Your task to perform on an android device: Turn on the flashlight Image 0: 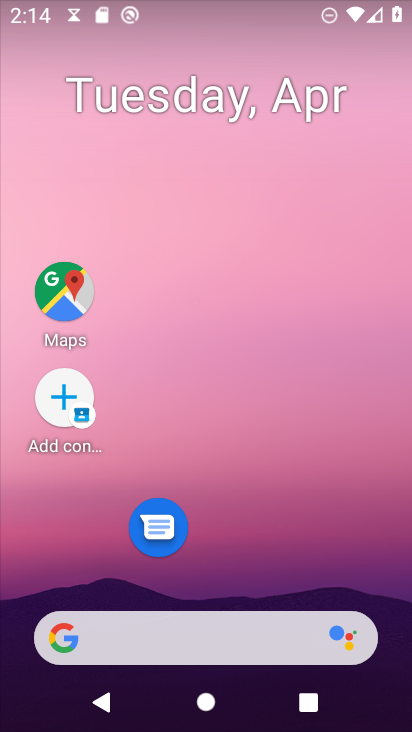
Step 0: drag from (217, 565) to (236, 123)
Your task to perform on an android device: Turn on the flashlight Image 1: 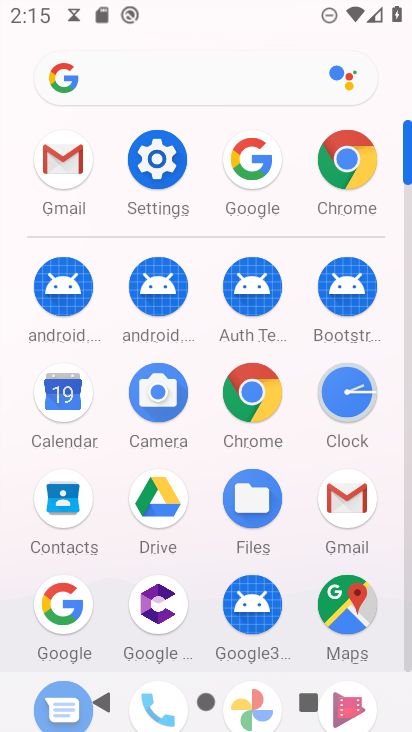
Step 1: click (156, 158)
Your task to perform on an android device: Turn on the flashlight Image 2: 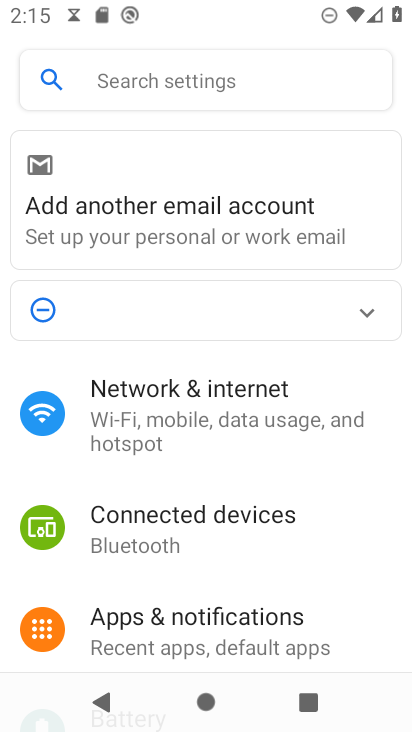
Step 2: drag from (198, 572) to (205, 460)
Your task to perform on an android device: Turn on the flashlight Image 3: 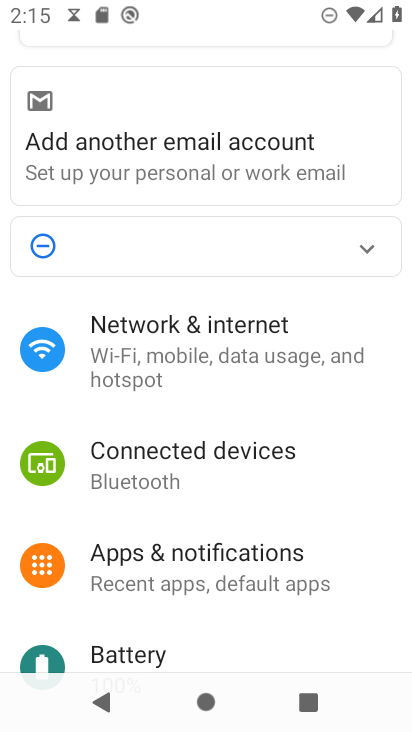
Step 3: drag from (251, 598) to (247, 502)
Your task to perform on an android device: Turn on the flashlight Image 4: 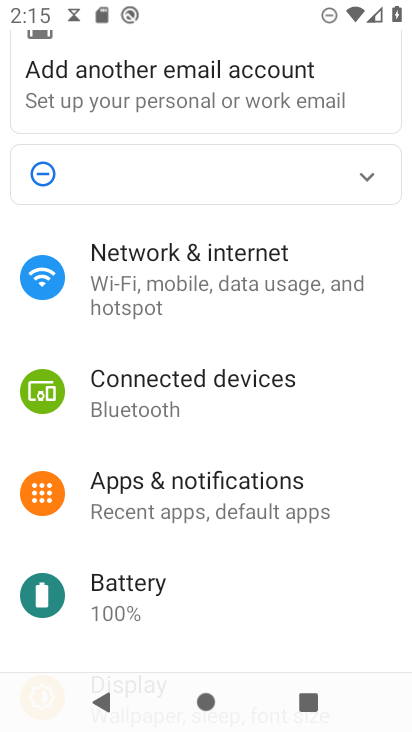
Step 4: drag from (243, 580) to (262, 468)
Your task to perform on an android device: Turn on the flashlight Image 5: 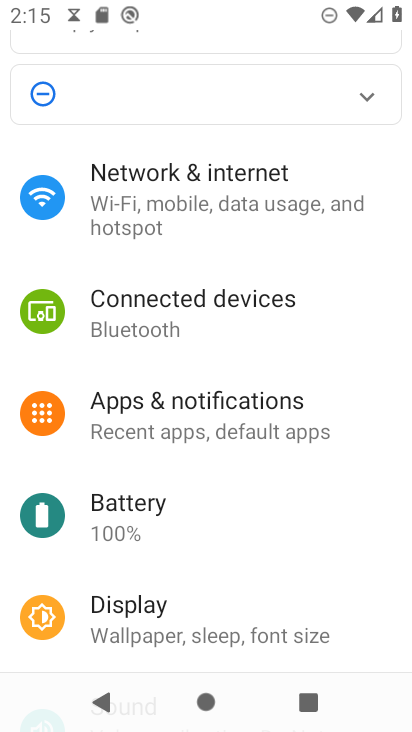
Step 5: drag from (217, 592) to (213, 481)
Your task to perform on an android device: Turn on the flashlight Image 6: 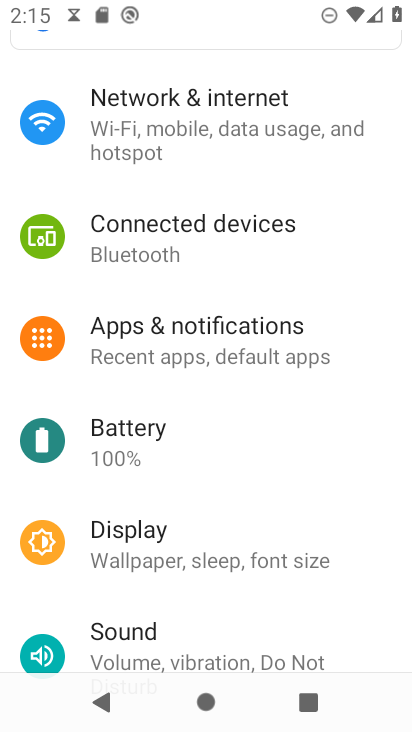
Step 6: drag from (193, 586) to (197, 497)
Your task to perform on an android device: Turn on the flashlight Image 7: 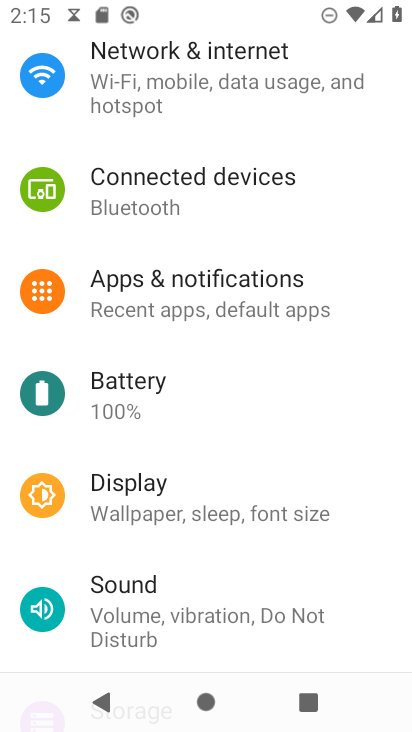
Step 7: click (202, 510)
Your task to perform on an android device: Turn on the flashlight Image 8: 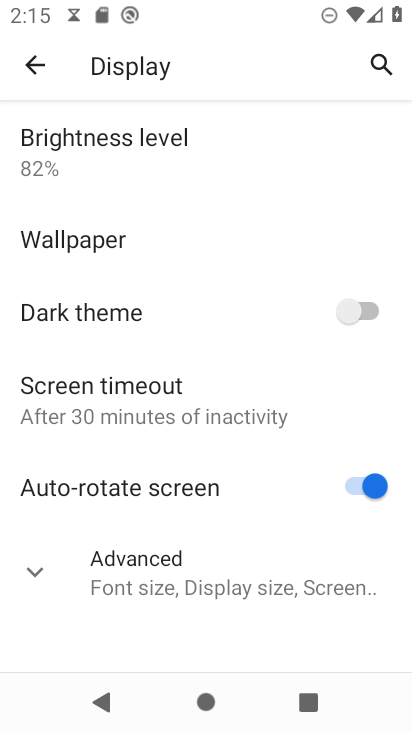
Step 8: drag from (222, 460) to (259, 337)
Your task to perform on an android device: Turn on the flashlight Image 9: 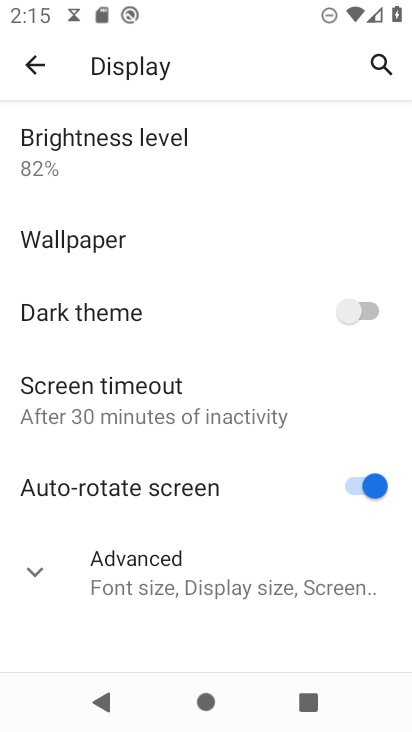
Step 9: drag from (183, 350) to (232, 536)
Your task to perform on an android device: Turn on the flashlight Image 10: 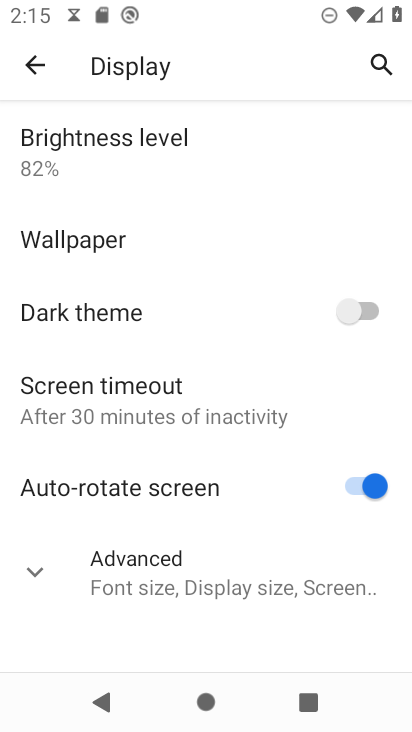
Step 10: click (189, 582)
Your task to perform on an android device: Turn on the flashlight Image 11: 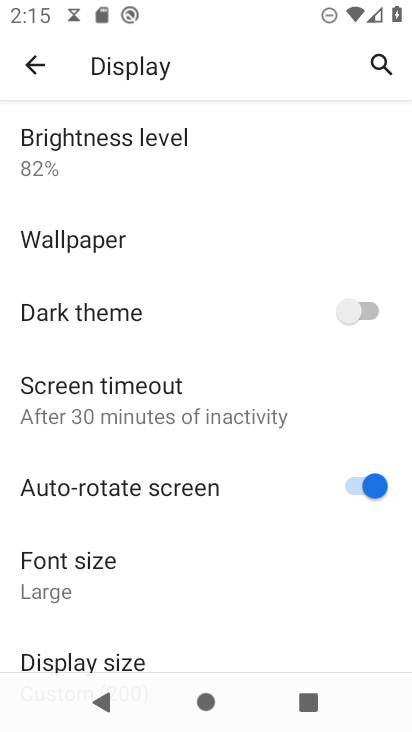
Step 11: task complete